Your task to perform on an android device: set an alarm Image 0: 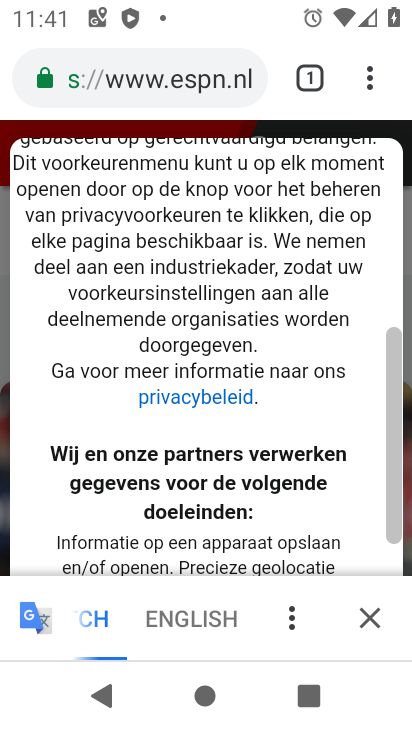
Step 0: press home button
Your task to perform on an android device: set an alarm Image 1: 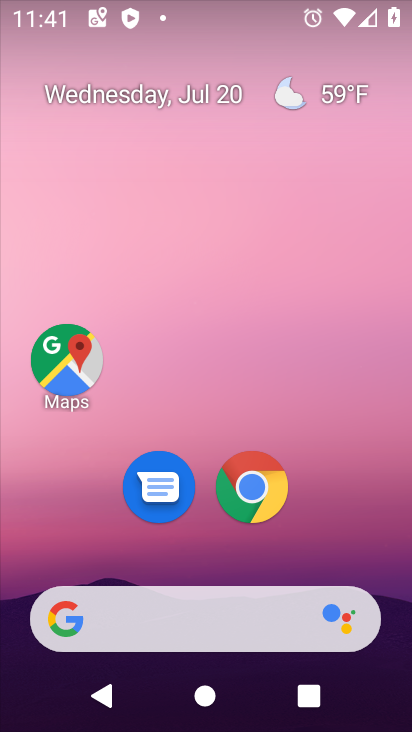
Step 1: drag from (374, 569) to (398, 137)
Your task to perform on an android device: set an alarm Image 2: 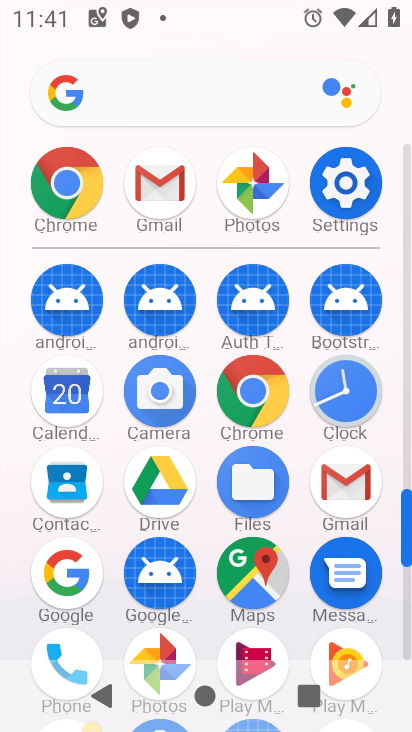
Step 2: click (353, 385)
Your task to perform on an android device: set an alarm Image 3: 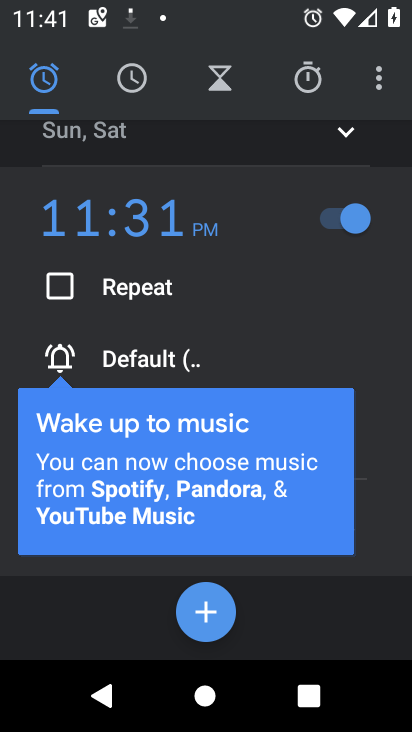
Step 3: click (215, 611)
Your task to perform on an android device: set an alarm Image 4: 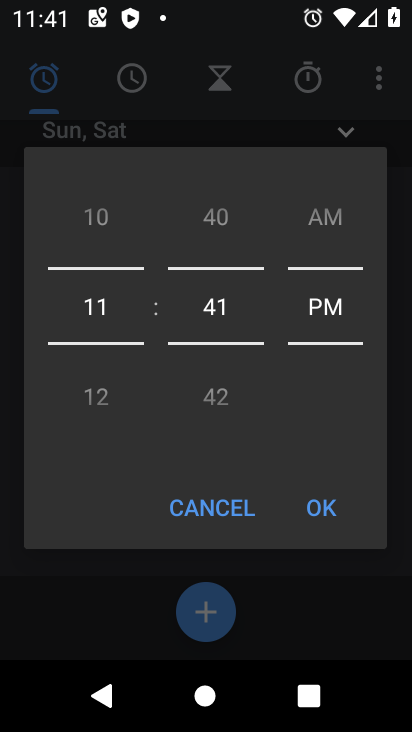
Step 4: click (311, 505)
Your task to perform on an android device: set an alarm Image 5: 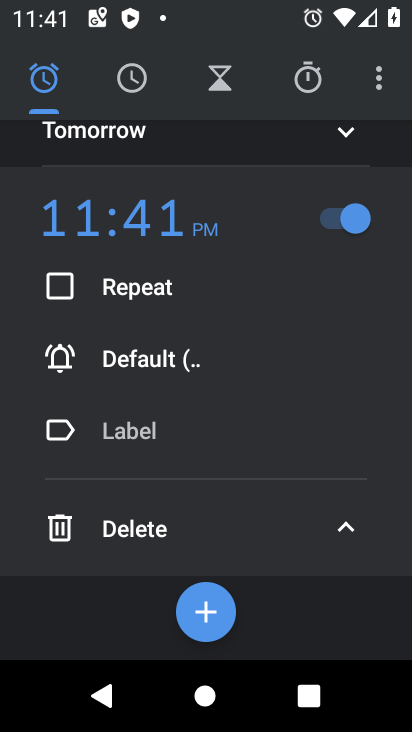
Step 5: task complete